Your task to perform on an android device: show emergency info Image 0: 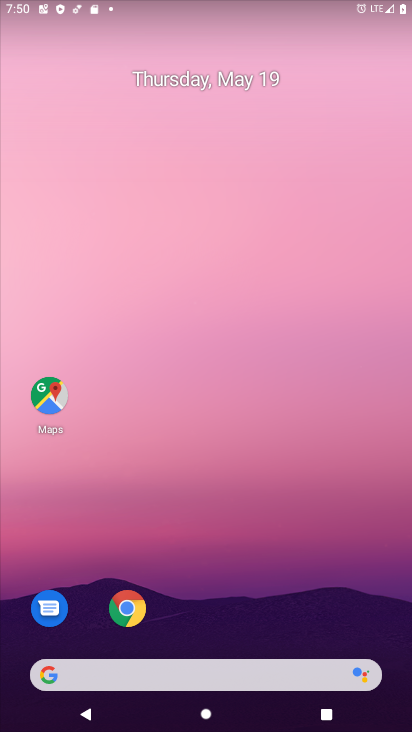
Step 0: drag from (382, 451) to (348, 39)
Your task to perform on an android device: show emergency info Image 1: 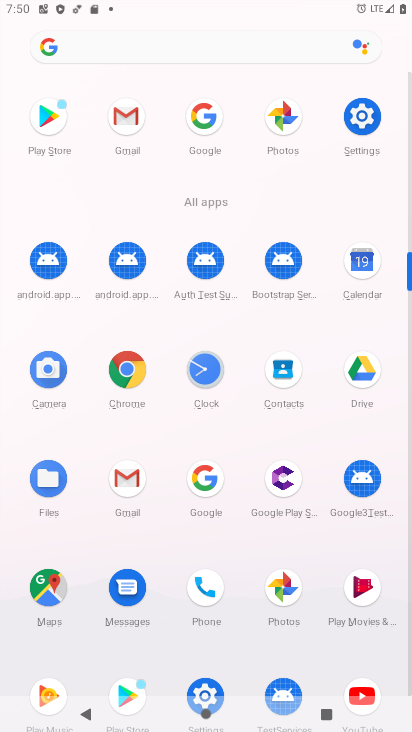
Step 1: click (361, 107)
Your task to perform on an android device: show emergency info Image 2: 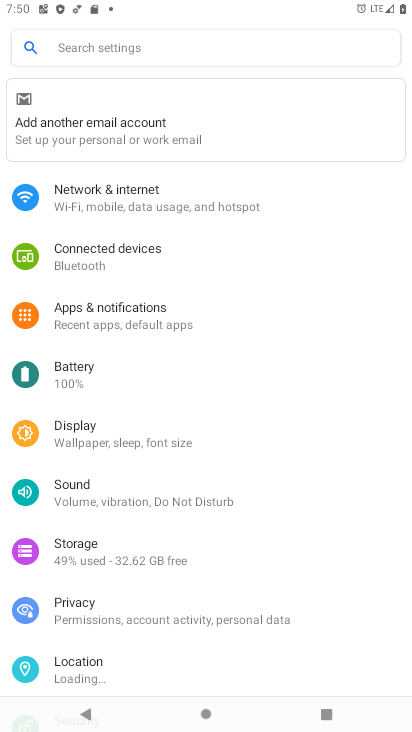
Step 2: drag from (343, 667) to (364, 311)
Your task to perform on an android device: show emergency info Image 3: 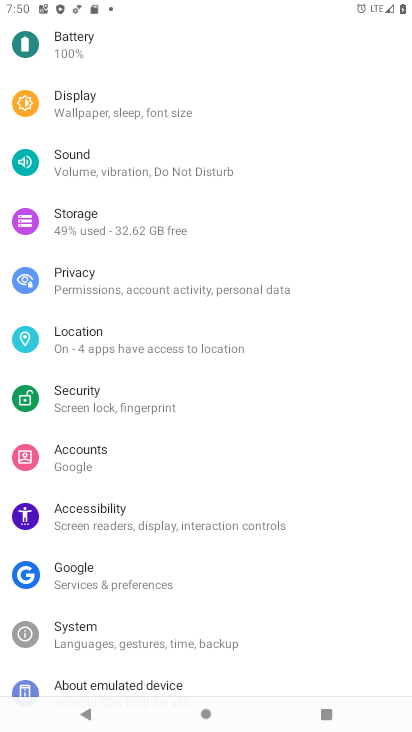
Step 3: drag from (368, 682) to (367, 377)
Your task to perform on an android device: show emergency info Image 4: 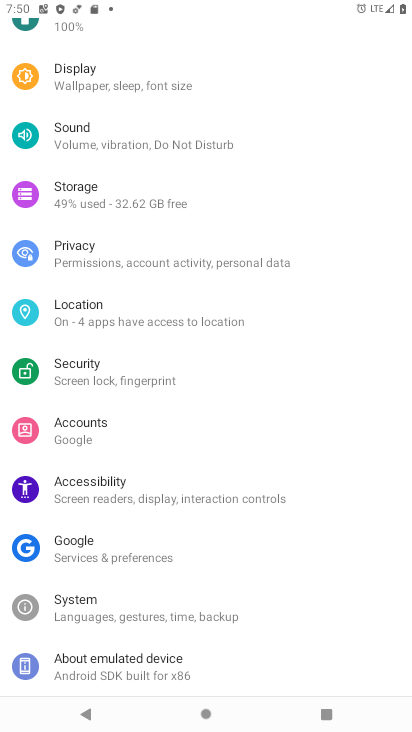
Step 4: click (129, 666)
Your task to perform on an android device: show emergency info Image 5: 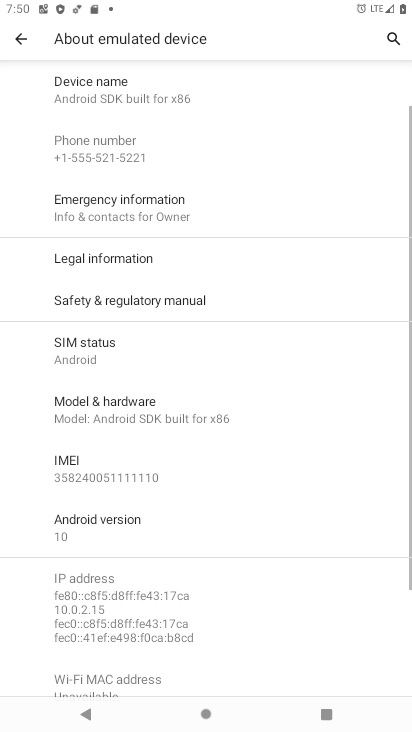
Step 5: click (139, 204)
Your task to perform on an android device: show emergency info Image 6: 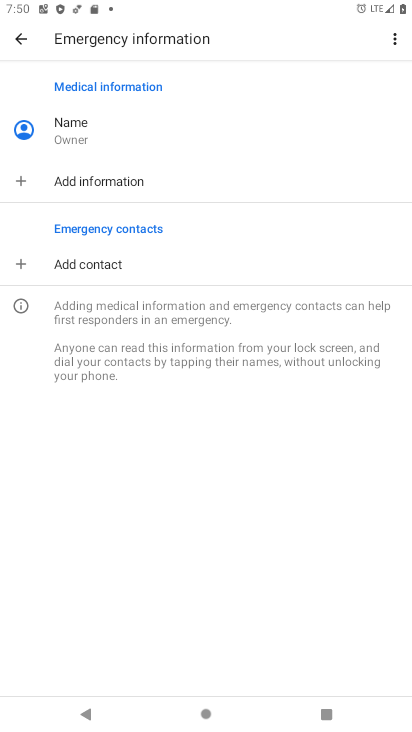
Step 6: task complete